Your task to perform on an android device: Open accessibility settings Image 0: 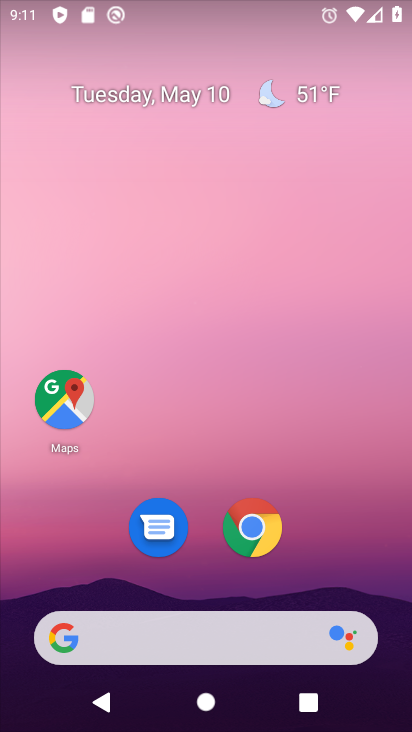
Step 0: drag from (214, 567) to (158, 4)
Your task to perform on an android device: Open accessibility settings Image 1: 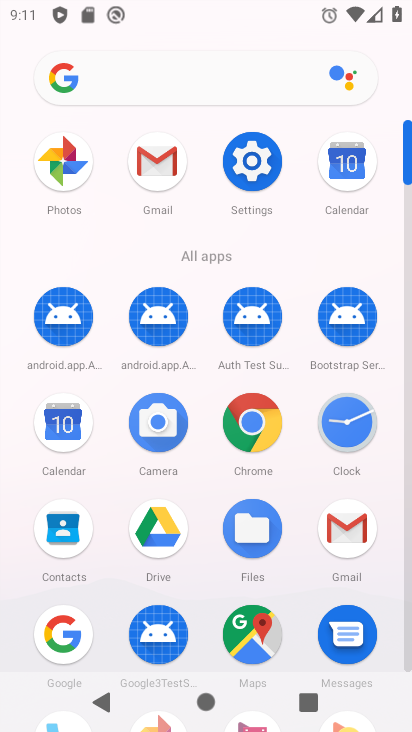
Step 1: click (244, 164)
Your task to perform on an android device: Open accessibility settings Image 2: 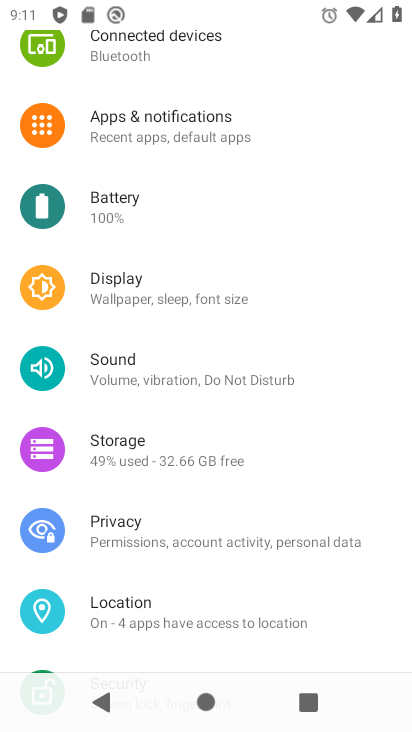
Step 2: drag from (245, 537) to (229, 133)
Your task to perform on an android device: Open accessibility settings Image 3: 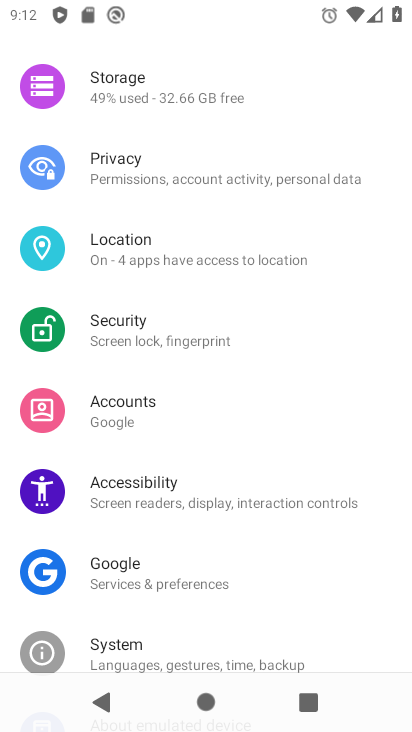
Step 3: click (158, 495)
Your task to perform on an android device: Open accessibility settings Image 4: 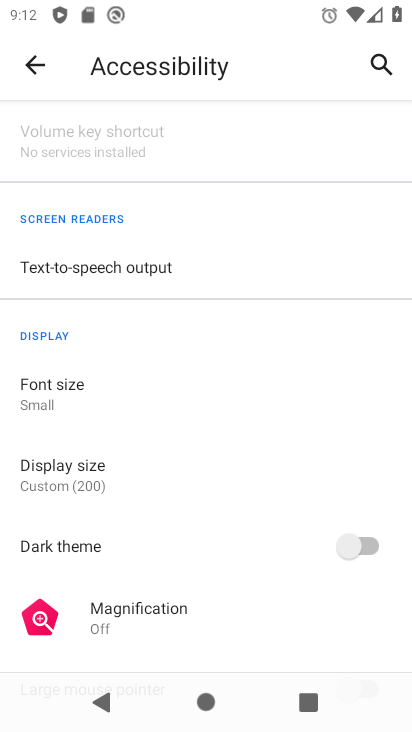
Step 4: task complete